Your task to perform on an android device: turn off sleep mode Image 0: 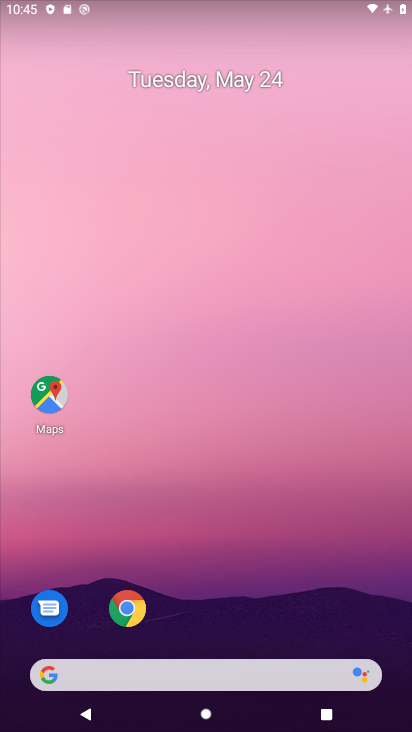
Step 0: drag from (366, 627) to (305, 15)
Your task to perform on an android device: turn off sleep mode Image 1: 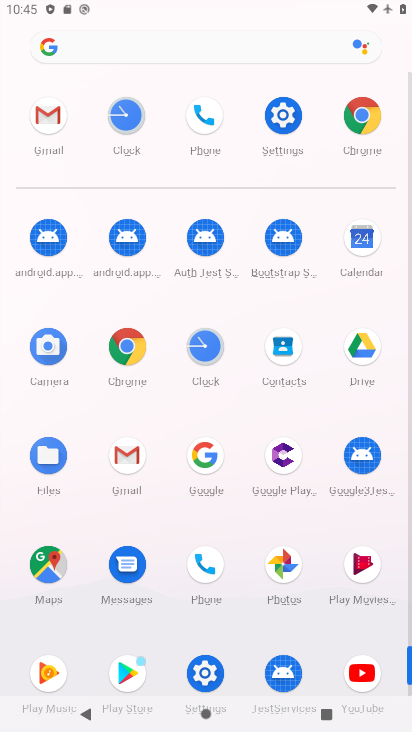
Step 1: click (410, 690)
Your task to perform on an android device: turn off sleep mode Image 2: 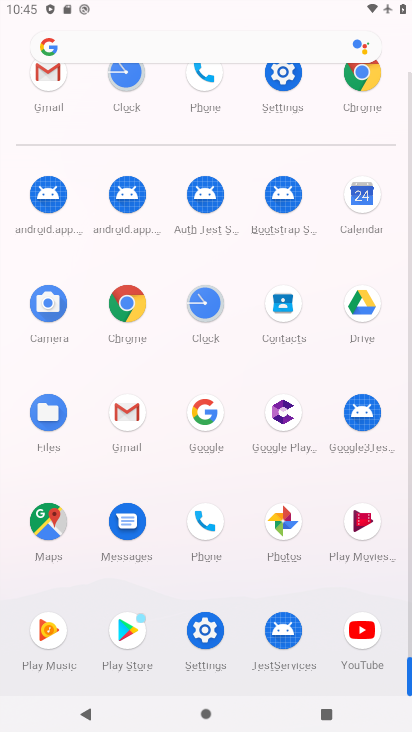
Step 2: click (205, 631)
Your task to perform on an android device: turn off sleep mode Image 3: 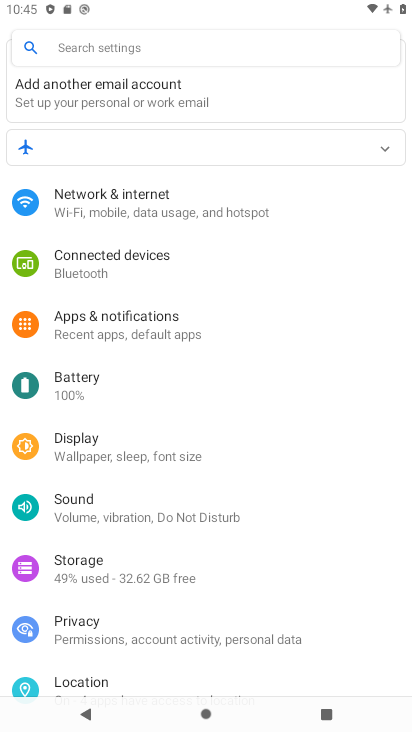
Step 3: click (95, 445)
Your task to perform on an android device: turn off sleep mode Image 4: 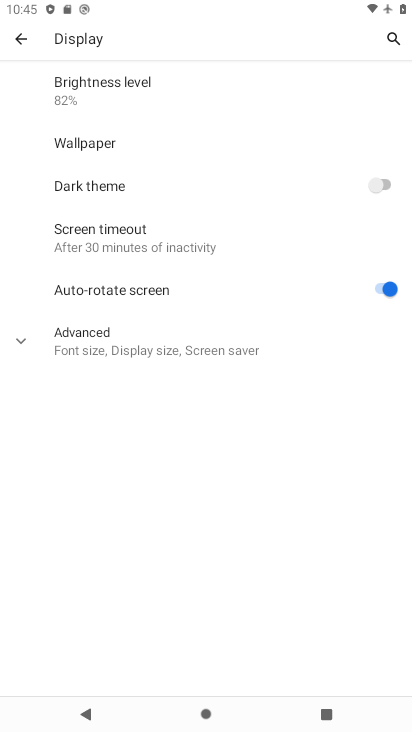
Step 4: click (20, 344)
Your task to perform on an android device: turn off sleep mode Image 5: 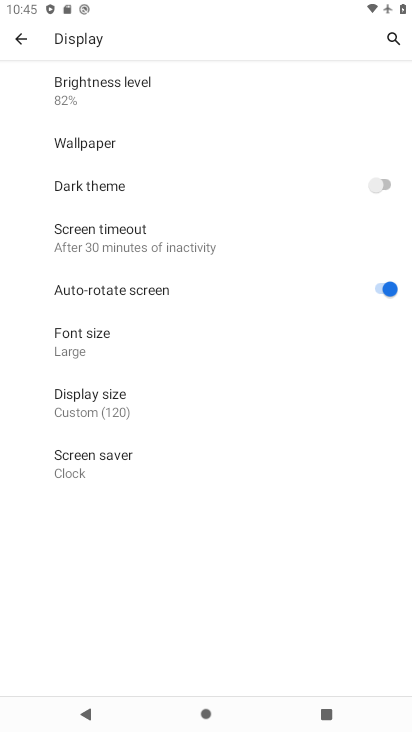
Step 5: task complete